Your task to perform on an android device: add a label to a message in the gmail app Image 0: 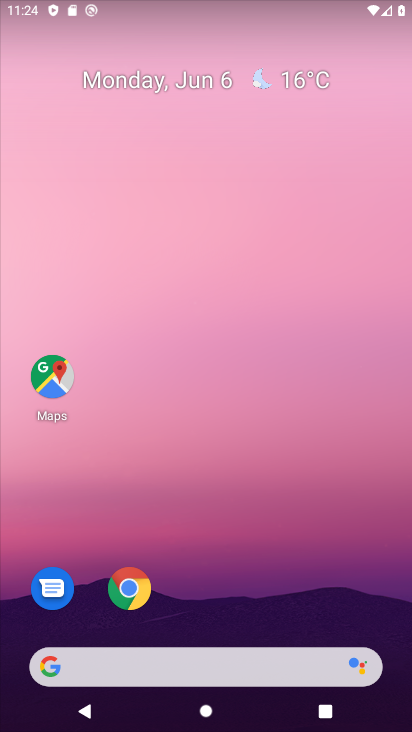
Step 0: drag from (399, 602) to (293, 158)
Your task to perform on an android device: add a label to a message in the gmail app Image 1: 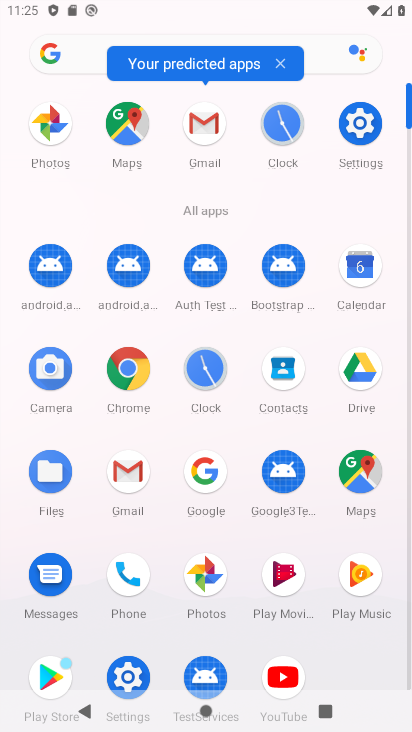
Step 1: click (141, 478)
Your task to perform on an android device: add a label to a message in the gmail app Image 2: 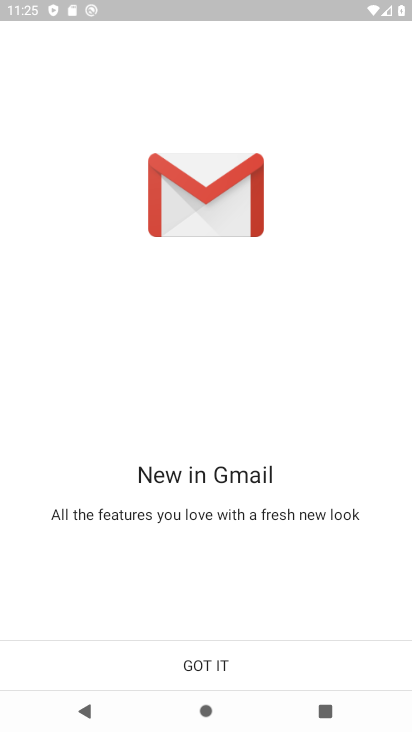
Step 2: click (270, 662)
Your task to perform on an android device: add a label to a message in the gmail app Image 3: 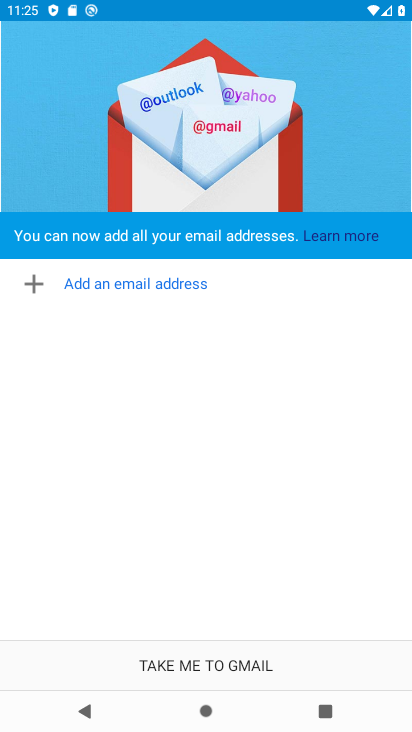
Step 3: click (270, 662)
Your task to perform on an android device: add a label to a message in the gmail app Image 4: 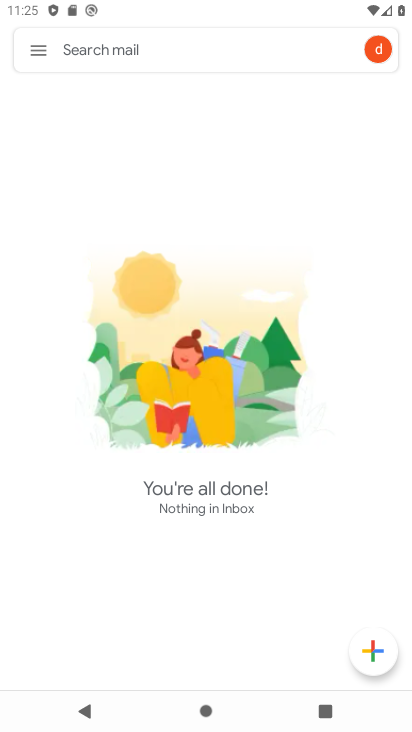
Step 4: task complete